Your task to perform on an android device: Open maps Image 0: 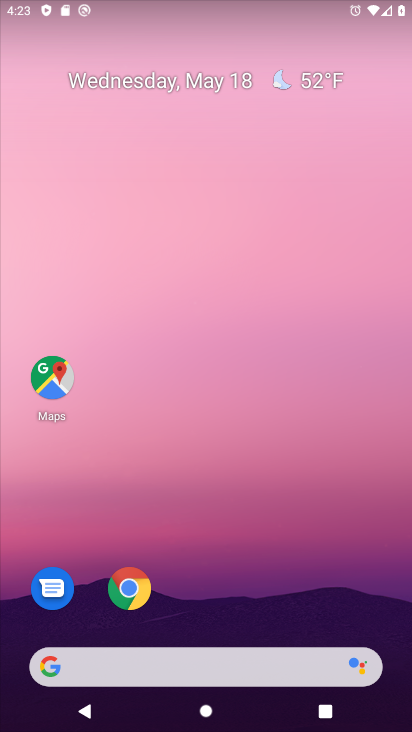
Step 0: click (53, 385)
Your task to perform on an android device: Open maps Image 1: 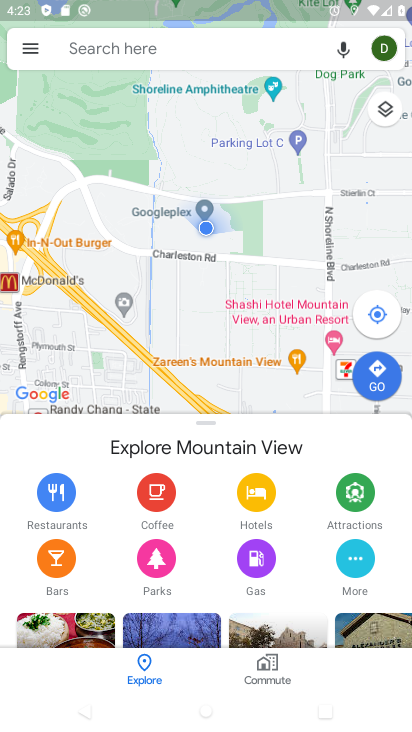
Step 1: task complete